Your task to perform on an android device: Open Yahoo.com Image 0: 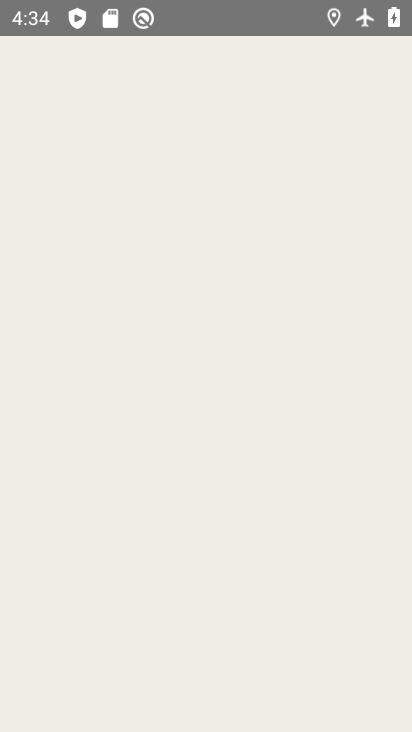
Step 0: click (260, 580)
Your task to perform on an android device: Open Yahoo.com Image 1: 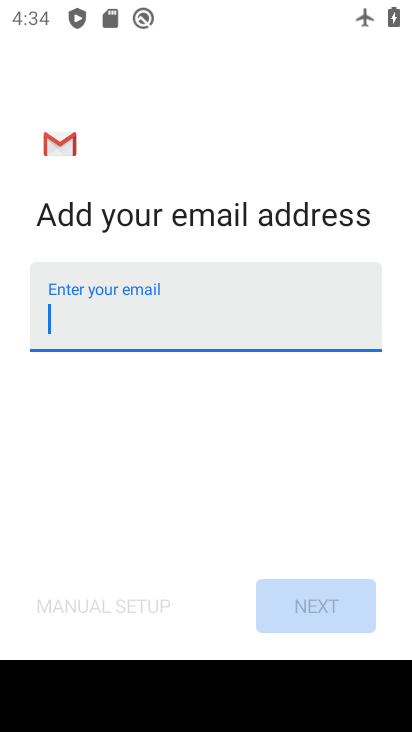
Step 1: press back button
Your task to perform on an android device: Open Yahoo.com Image 2: 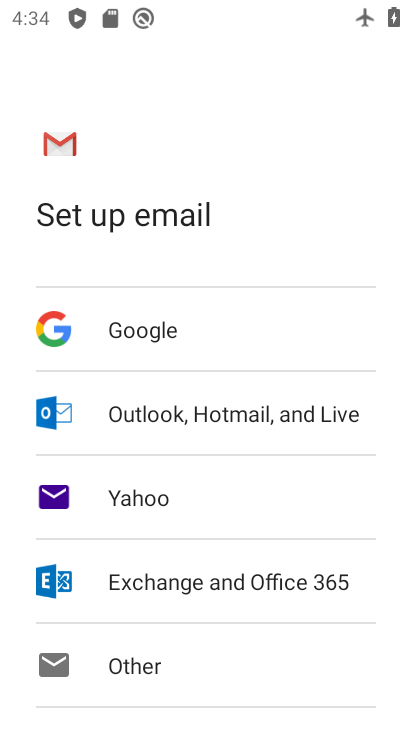
Step 2: press back button
Your task to perform on an android device: Open Yahoo.com Image 3: 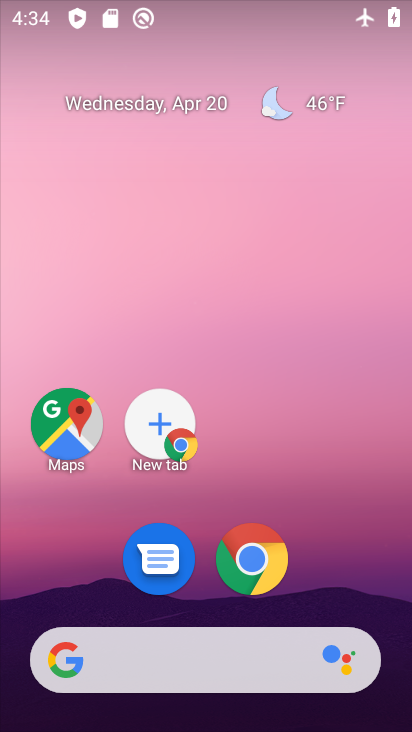
Step 3: click (247, 575)
Your task to perform on an android device: Open Yahoo.com Image 4: 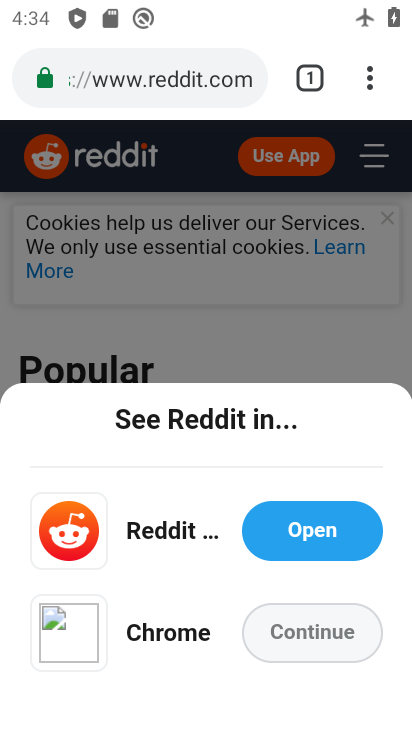
Step 4: click (229, 86)
Your task to perform on an android device: Open Yahoo.com Image 5: 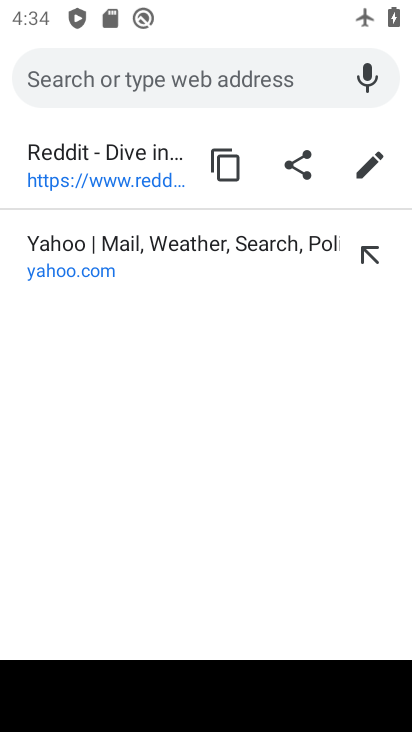
Step 5: click (176, 239)
Your task to perform on an android device: Open Yahoo.com Image 6: 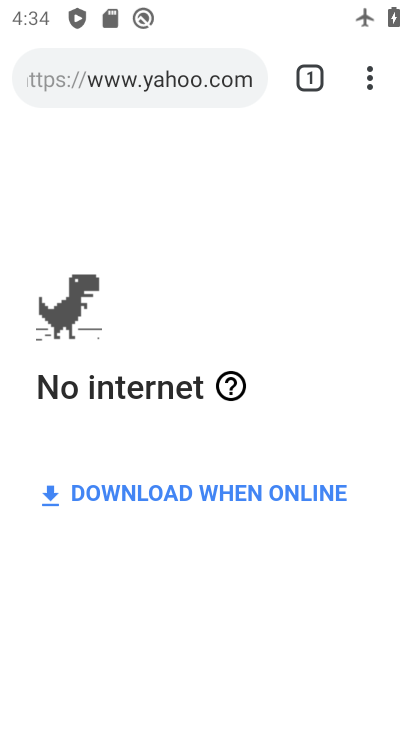
Step 6: task complete